Your task to perform on an android device: delete the emails in spam in the gmail app Image 0: 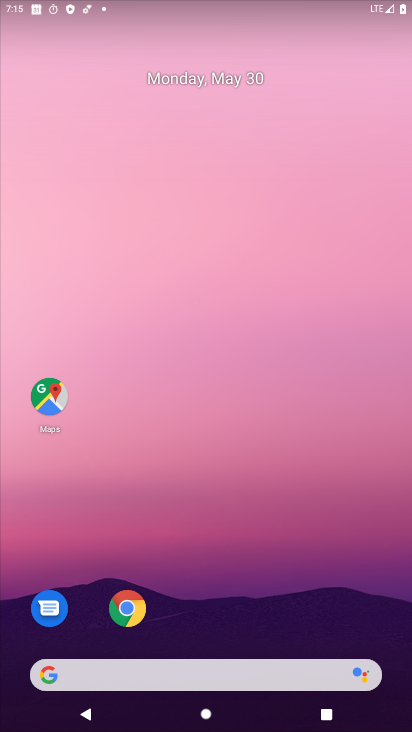
Step 0: drag from (226, 557) to (269, 194)
Your task to perform on an android device: delete the emails in spam in the gmail app Image 1: 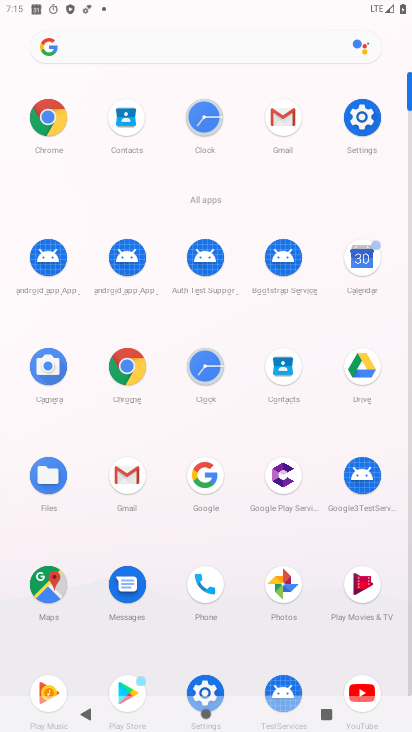
Step 1: click (279, 111)
Your task to perform on an android device: delete the emails in spam in the gmail app Image 2: 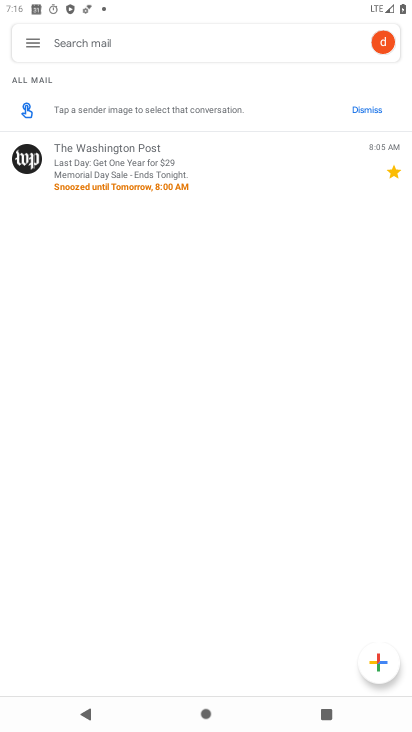
Step 2: click (37, 47)
Your task to perform on an android device: delete the emails in spam in the gmail app Image 3: 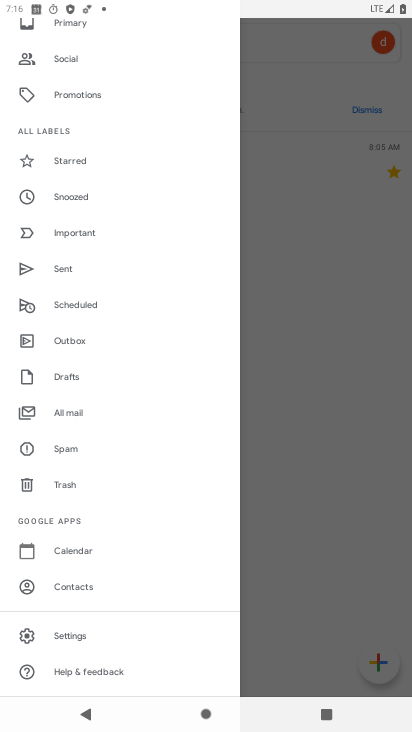
Step 3: click (71, 448)
Your task to perform on an android device: delete the emails in spam in the gmail app Image 4: 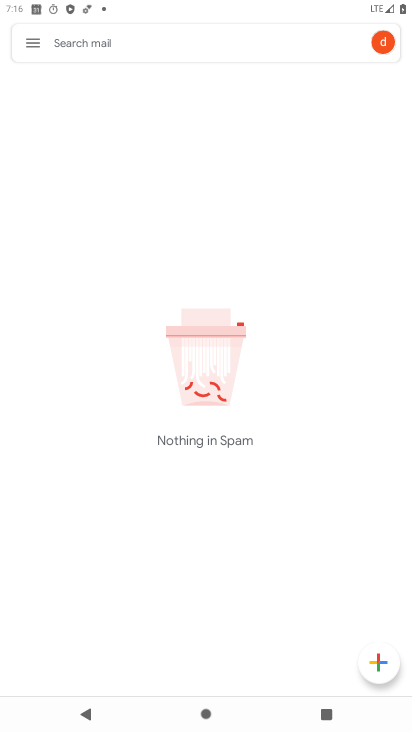
Step 4: task complete